Your task to perform on an android device: Open Chrome and go to settings Image 0: 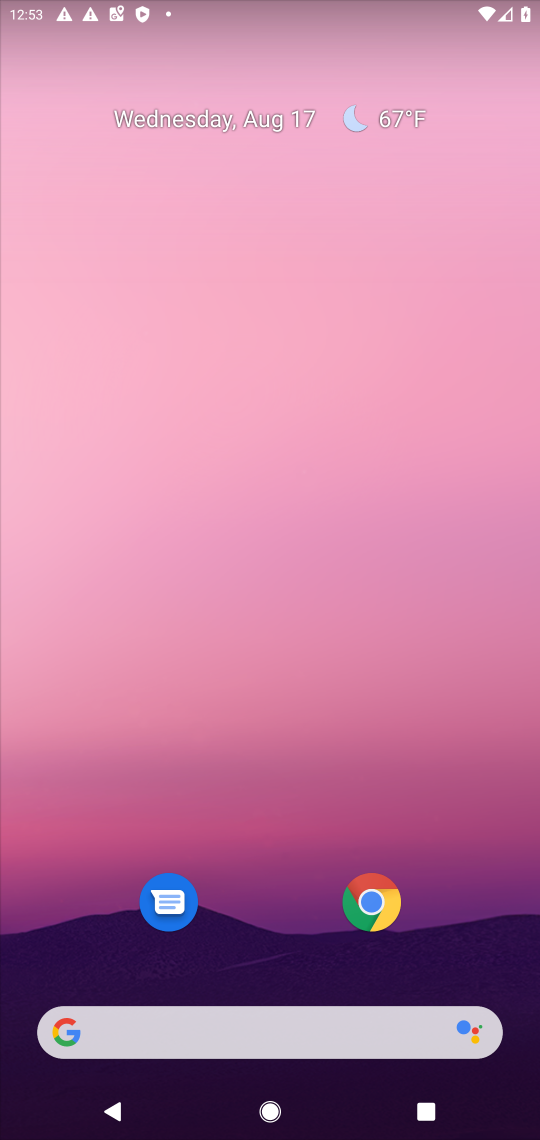
Step 0: click (367, 910)
Your task to perform on an android device: Open Chrome and go to settings Image 1: 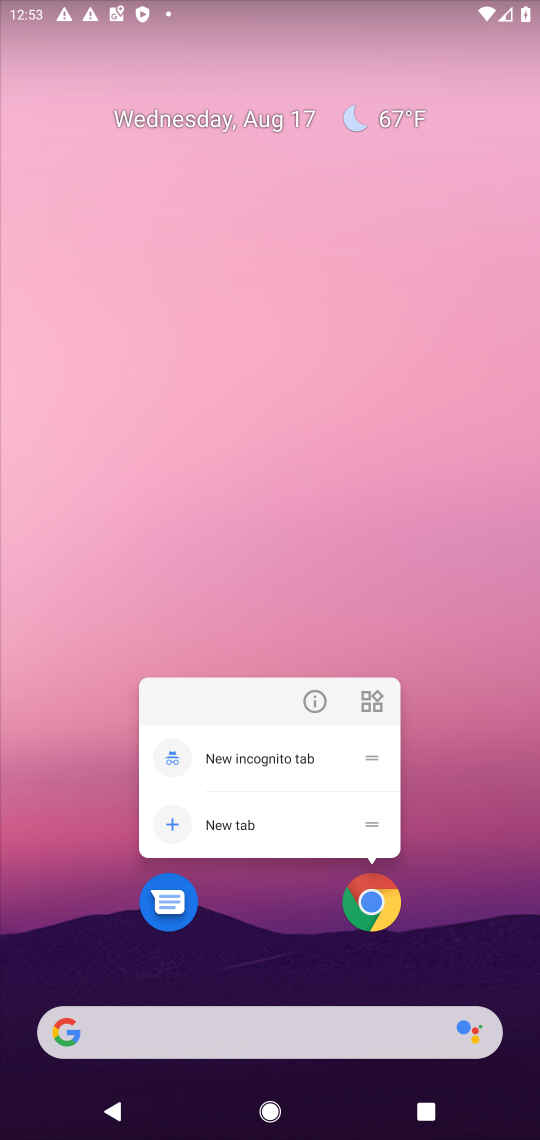
Step 1: click (367, 910)
Your task to perform on an android device: Open Chrome and go to settings Image 2: 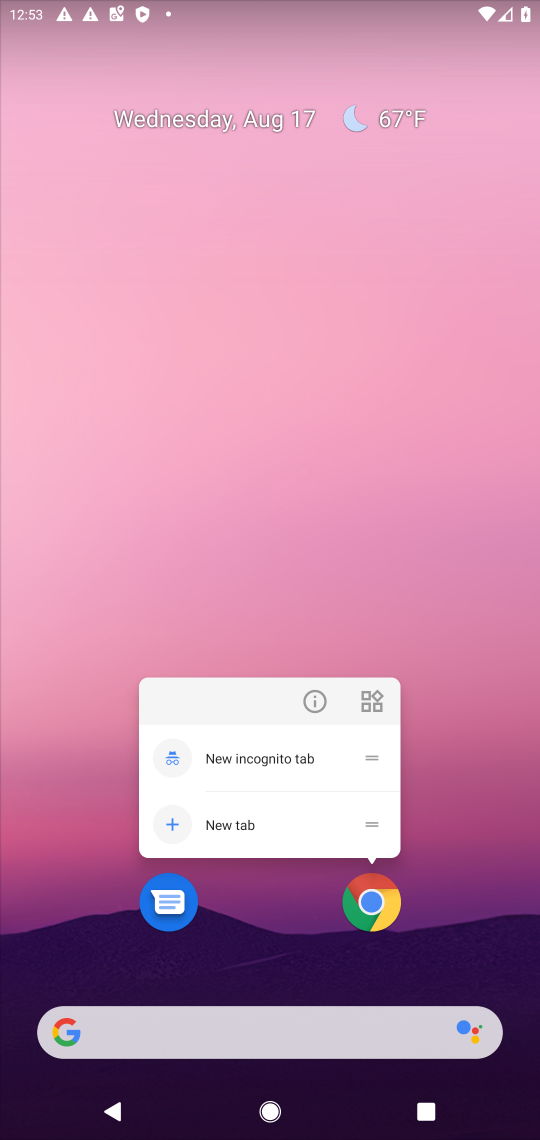
Step 2: click (368, 916)
Your task to perform on an android device: Open Chrome and go to settings Image 3: 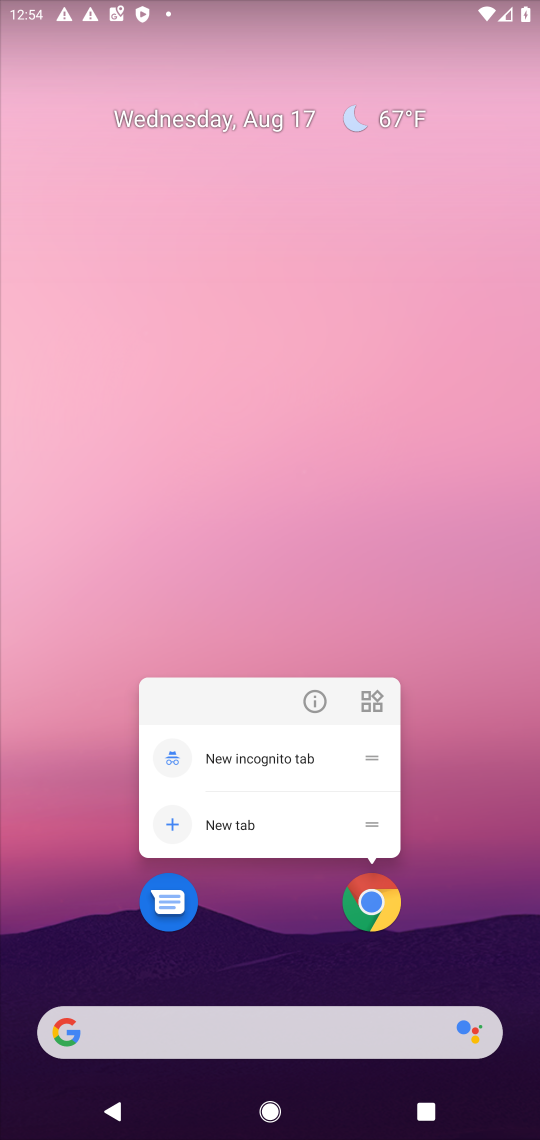
Step 3: click (368, 916)
Your task to perform on an android device: Open Chrome and go to settings Image 4: 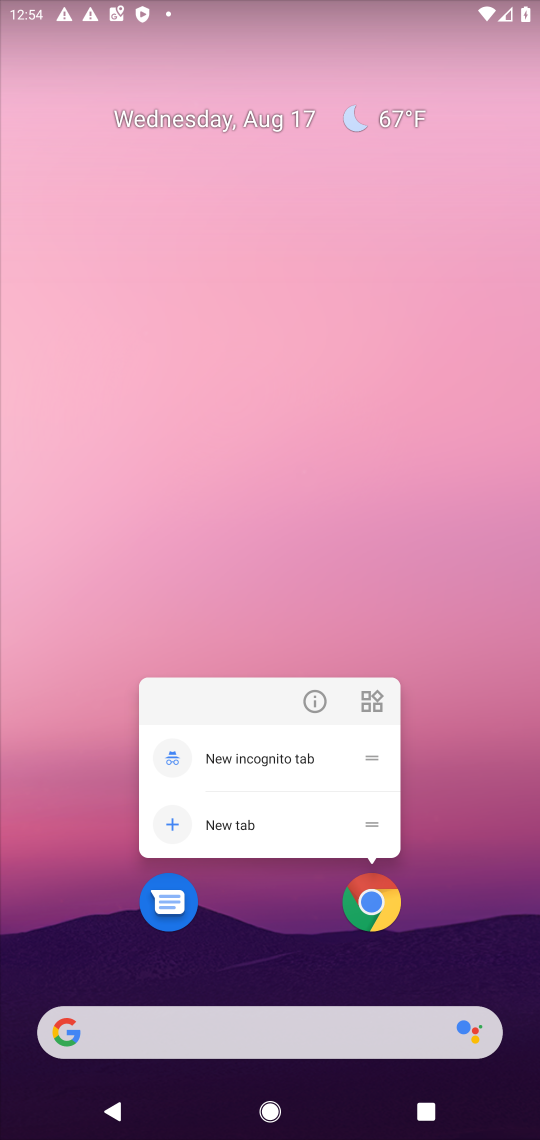
Step 4: click (387, 913)
Your task to perform on an android device: Open Chrome and go to settings Image 5: 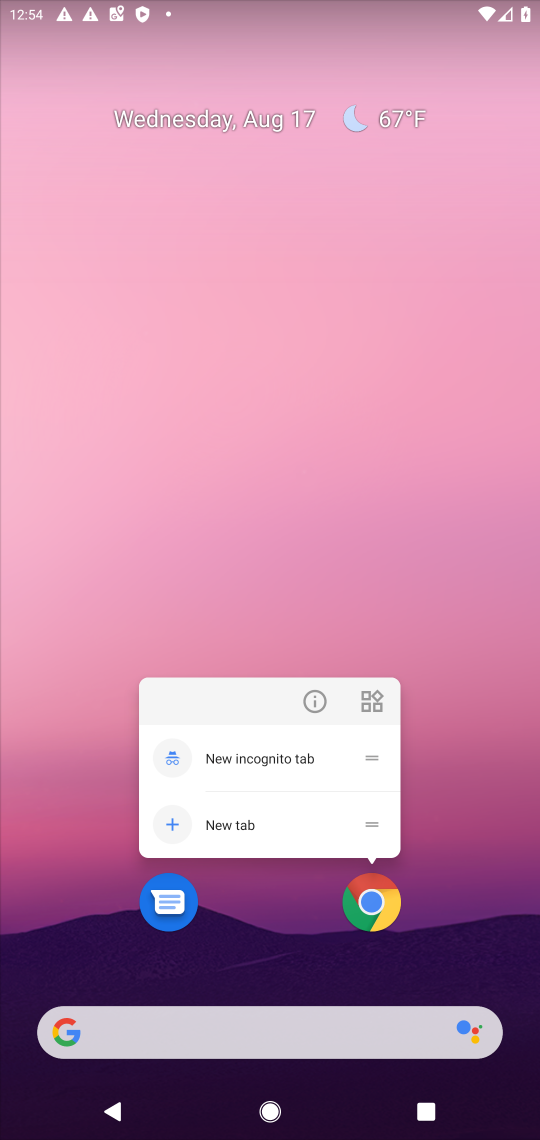
Step 5: click (387, 913)
Your task to perform on an android device: Open Chrome and go to settings Image 6: 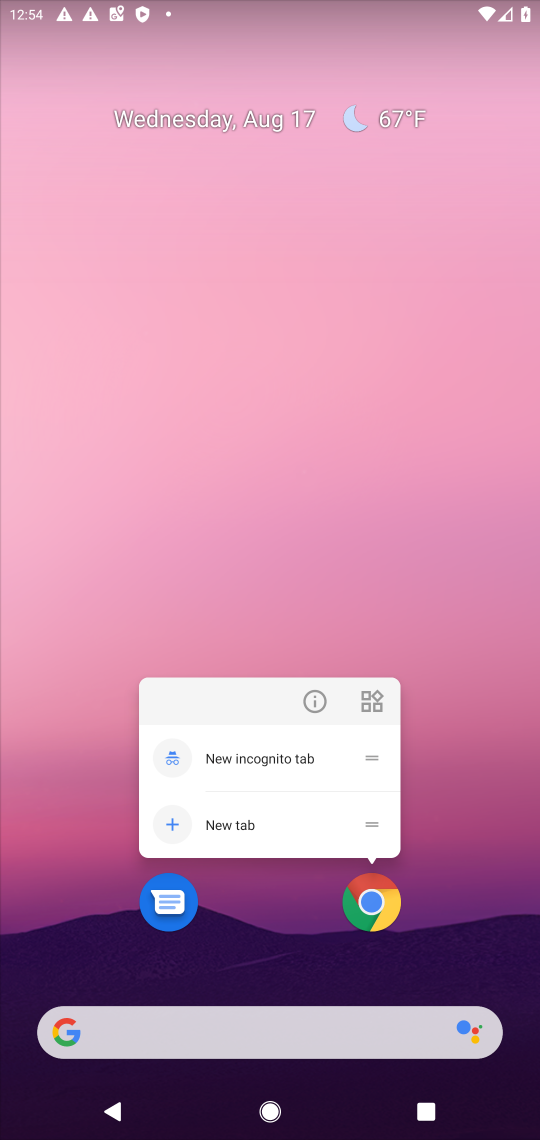
Step 6: click (382, 914)
Your task to perform on an android device: Open Chrome and go to settings Image 7: 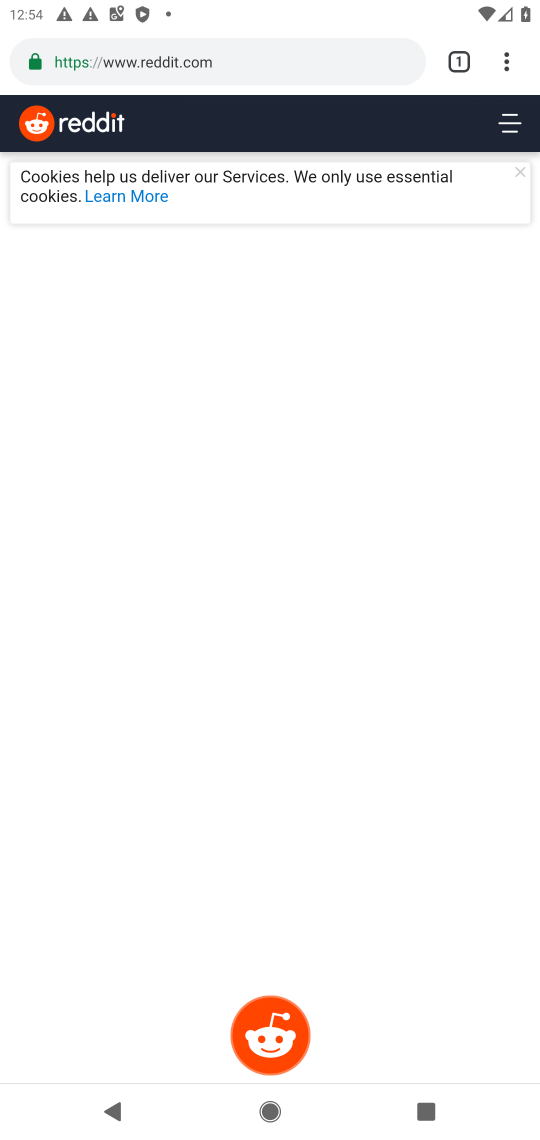
Step 7: click (511, 62)
Your task to perform on an android device: Open Chrome and go to settings Image 8: 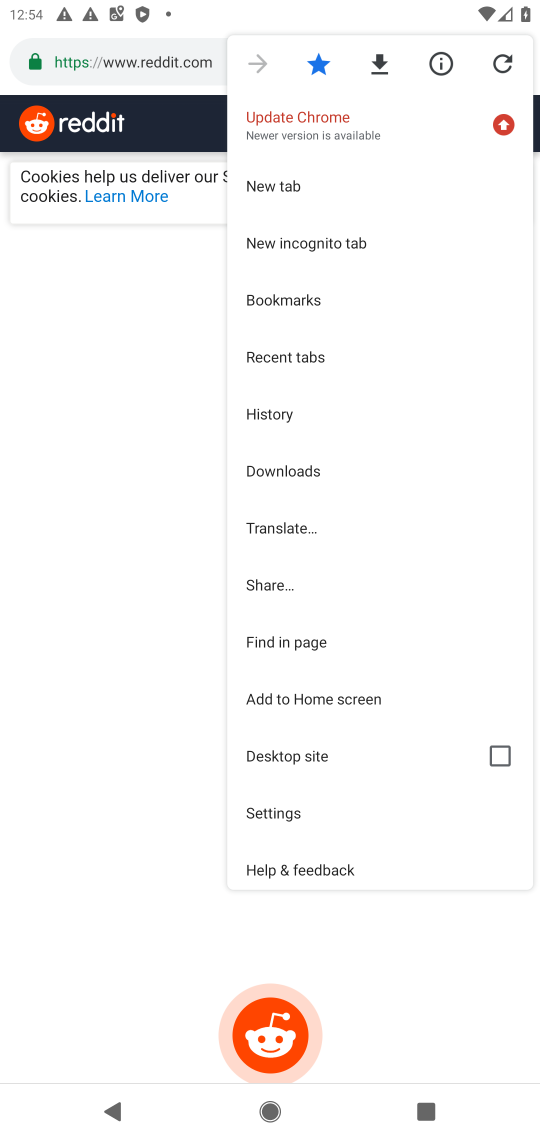
Step 8: click (288, 814)
Your task to perform on an android device: Open Chrome and go to settings Image 9: 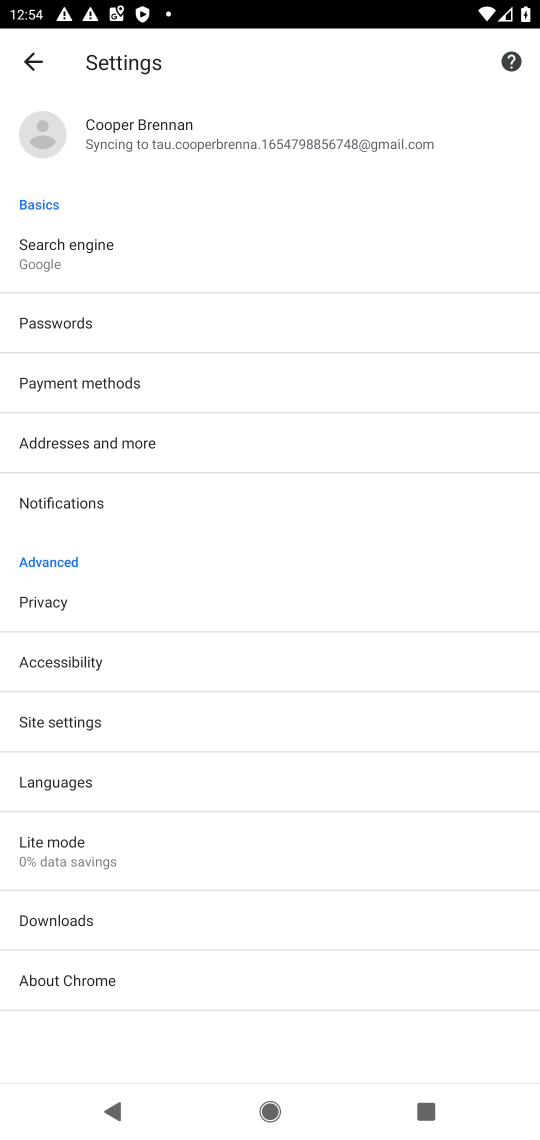
Step 9: task complete